Your task to perform on an android device: Check the news Image 0: 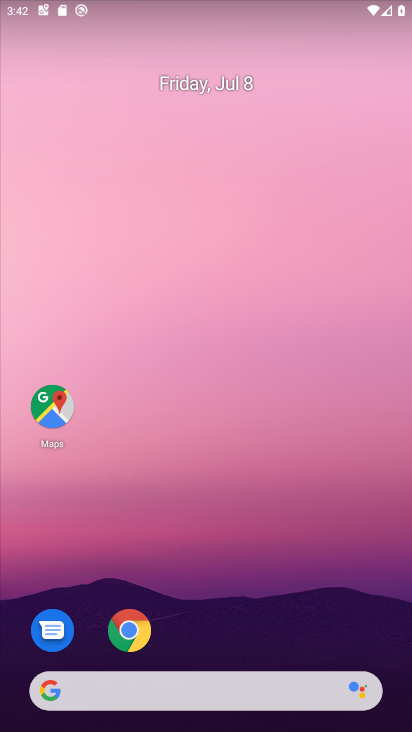
Step 0: drag from (298, 586) to (235, 112)
Your task to perform on an android device: Check the news Image 1: 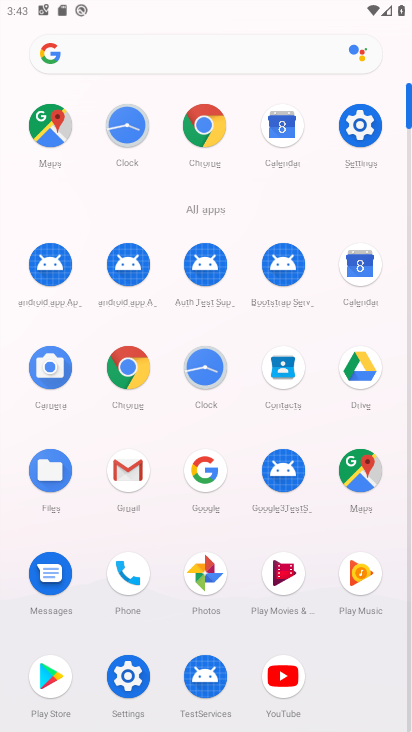
Step 1: click (209, 117)
Your task to perform on an android device: Check the news Image 2: 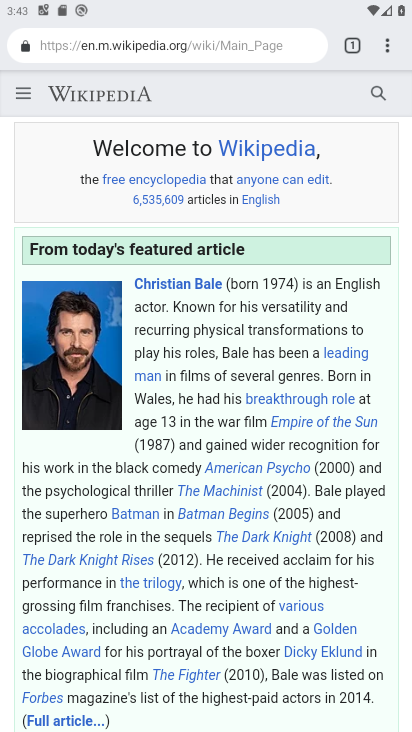
Step 2: click (211, 45)
Your task to perform on an android device: Check the news Image 3: 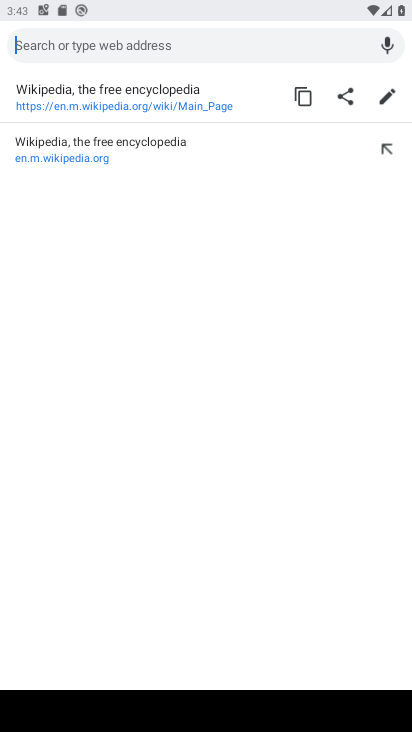
Step 3: type "news"
Your task to perform on an android device: Check the news Image 4: 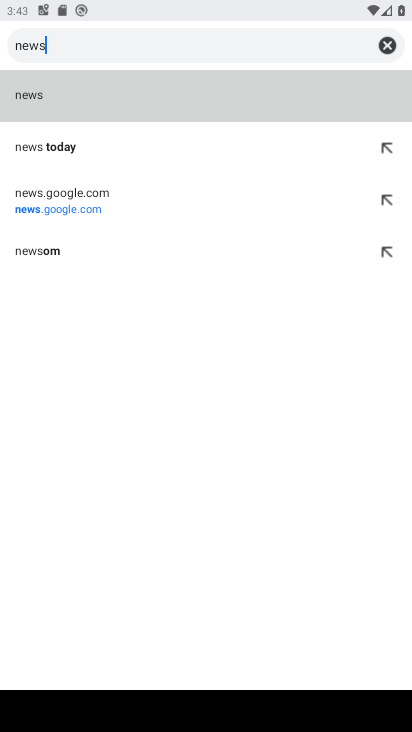
Step 4: click (45, 89)
Your task to perform on an android device: Check the news Image 5: 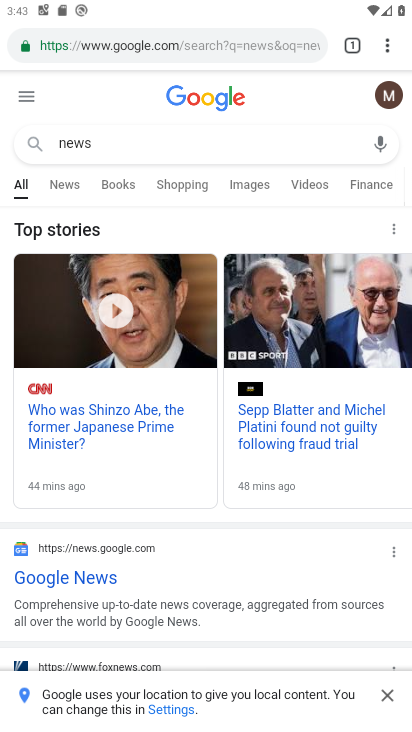
Step 5: click (57, 184)
Your task to perform on an android device: Check the news Image 6: 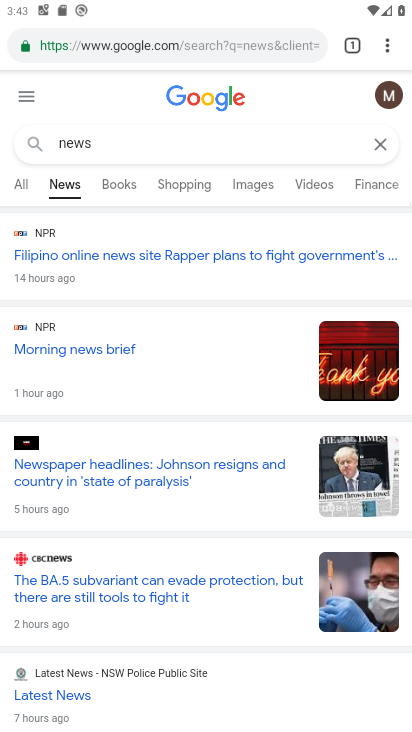
Step 6: task complete